Your task to perform on an android device: Open eBay Image 0: 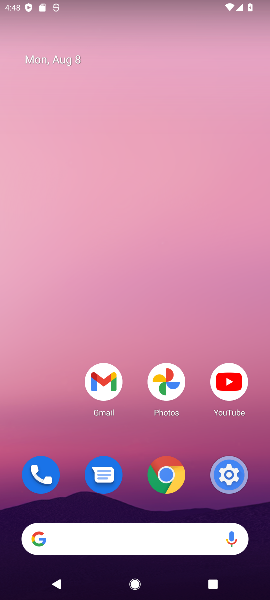
Step 0: press home button
Your task to perform on an android device: Open eBay Image 1: 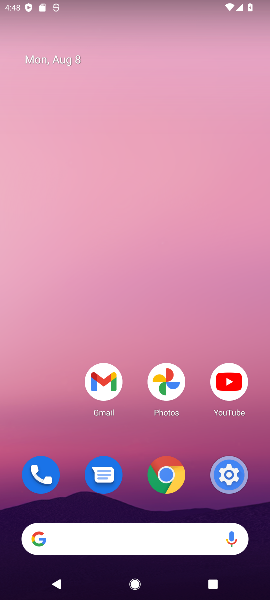
Step 1: drag from (65, 430) to (83, 115)
Your task to perform on an android device: Open eBay Image 2: 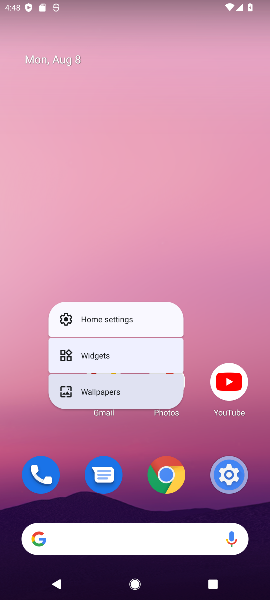
Step 2: click (229, 298)
Your task to perform on an android device: Open eBay Image 3: 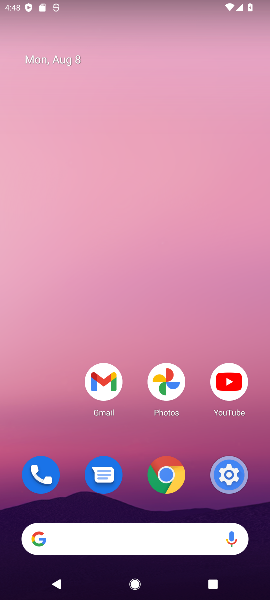
Step 3: drag from (58, 423) to (57, 136)
Your task to perform on an android device: Open eBay Image 4: 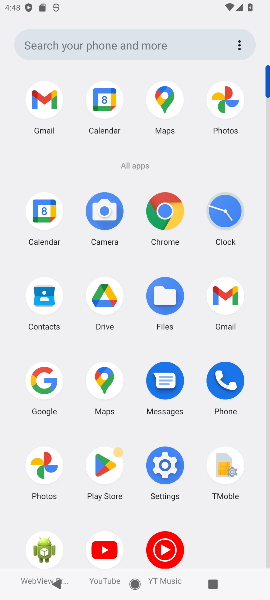
Step 4: click (164, 213)
Your task to perform on an android device: Open eBay Image 5: 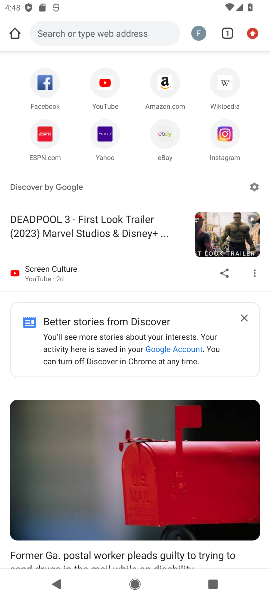
Step 5: click (129, 32)
Your task to perform on an android device: Open eBay Image 6: 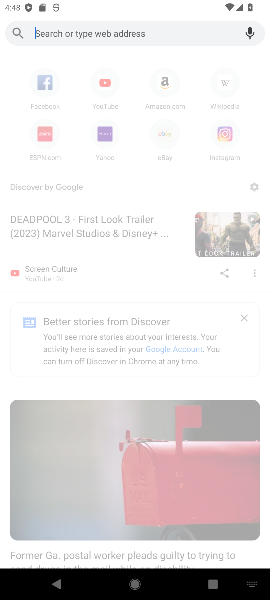
Step 6: type "ebay"
Your task to perform on an android device: Open eBay Image 7: 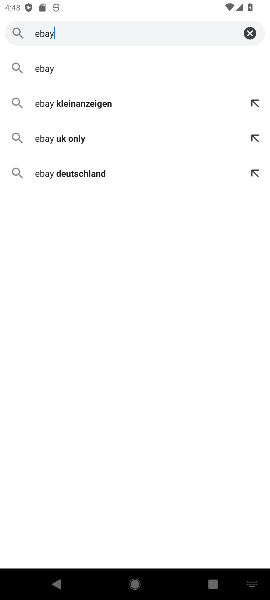
Step 7: click (62, 68)
Your task to perform on an android device: Open eBay Image 8: 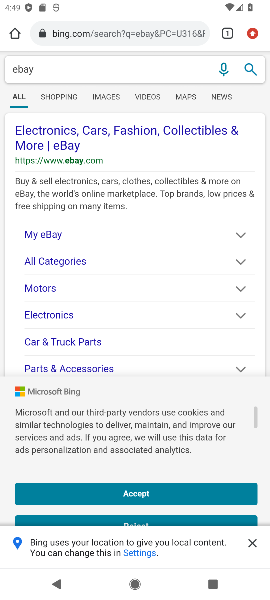
Step 8: task complete